Your task to perform on an android device: turn off javascript in the chrome app Image 0: 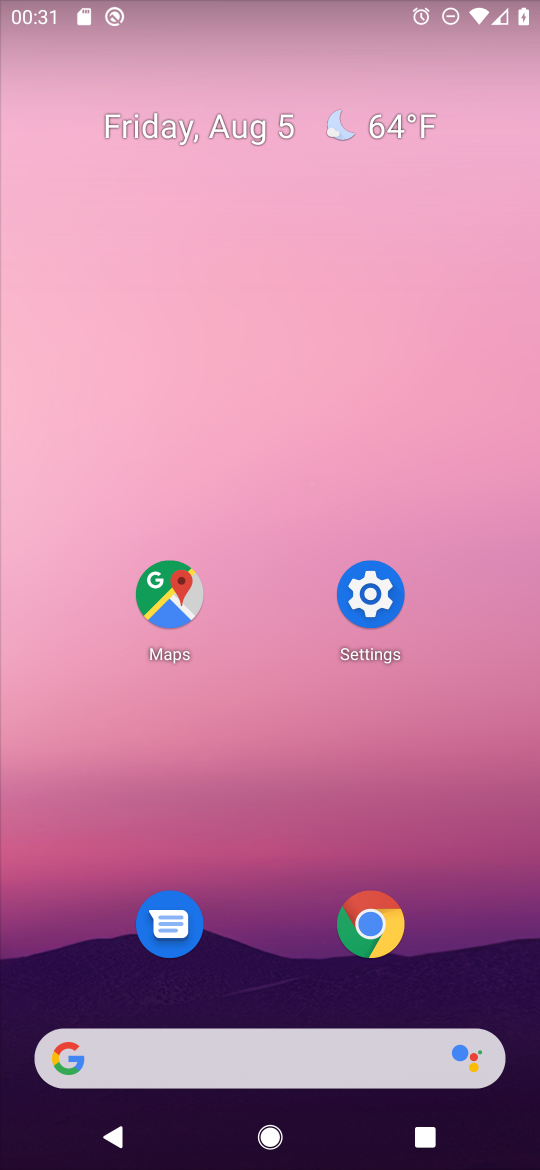
Step 0: click (376, 929)
Your task to perform on an android device: turn off javascript in the chrome app Image 1: 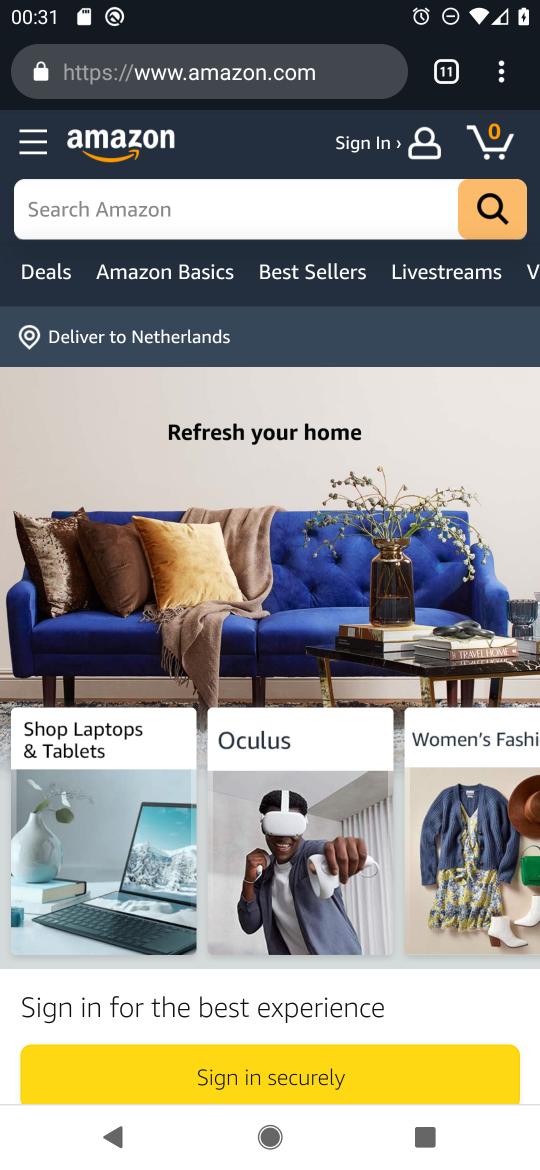
Step 1: drag from (502, 78) to (344, 852)
Your task to perform on an android device: turn off javascript in the chrome app Image 2: 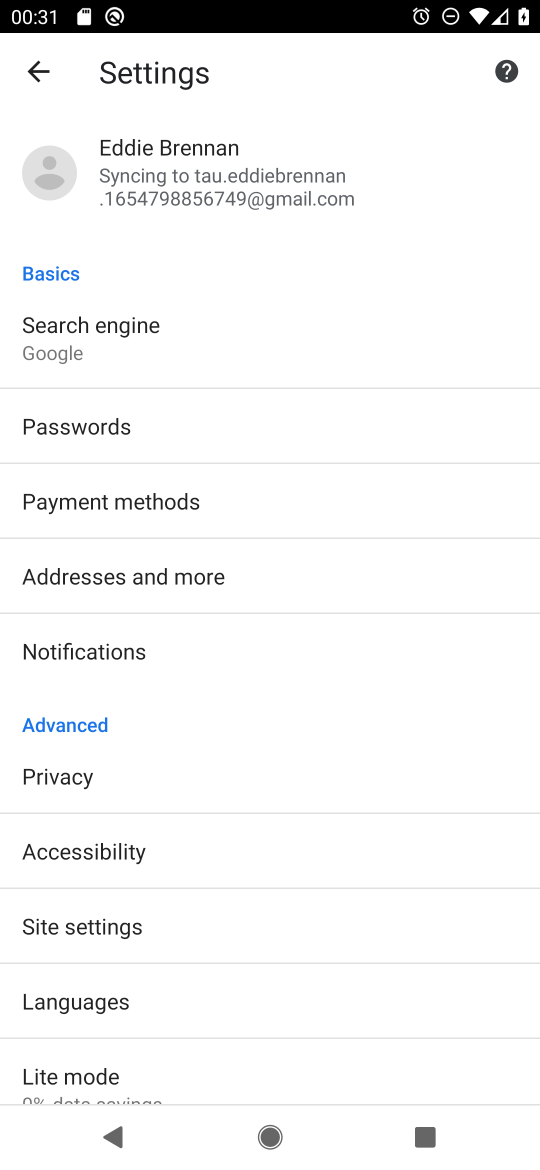
Step 2: drag from (293, 892) to (416, 208)
Your task to perform on an android device: turn off javascript in the chrome app Image 3: 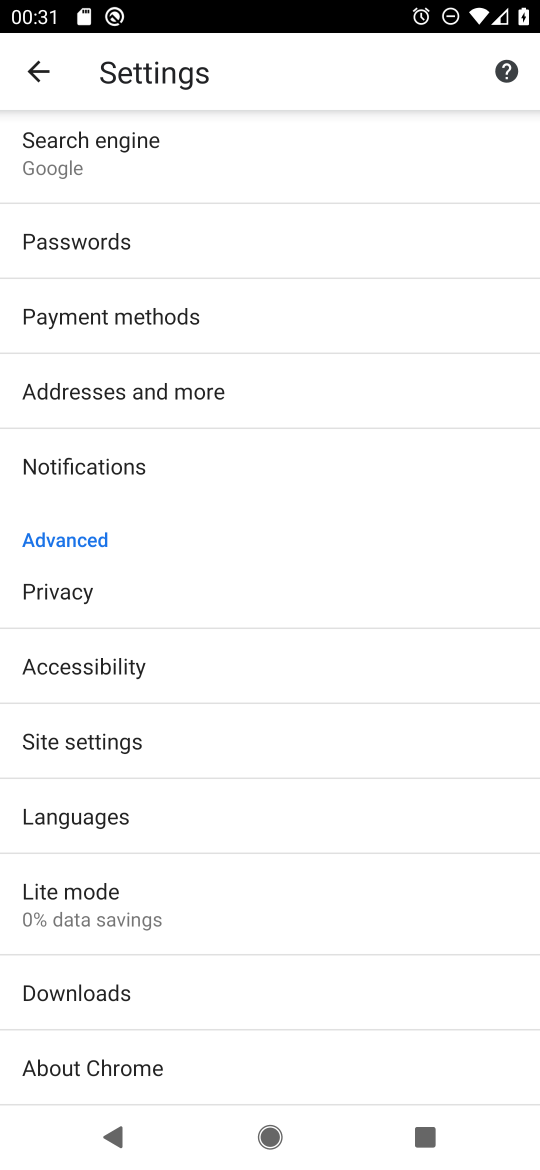
Step 3: click (152, 765)
Your task to perform on an android device: turn off javascript in the chrome app Image 4: 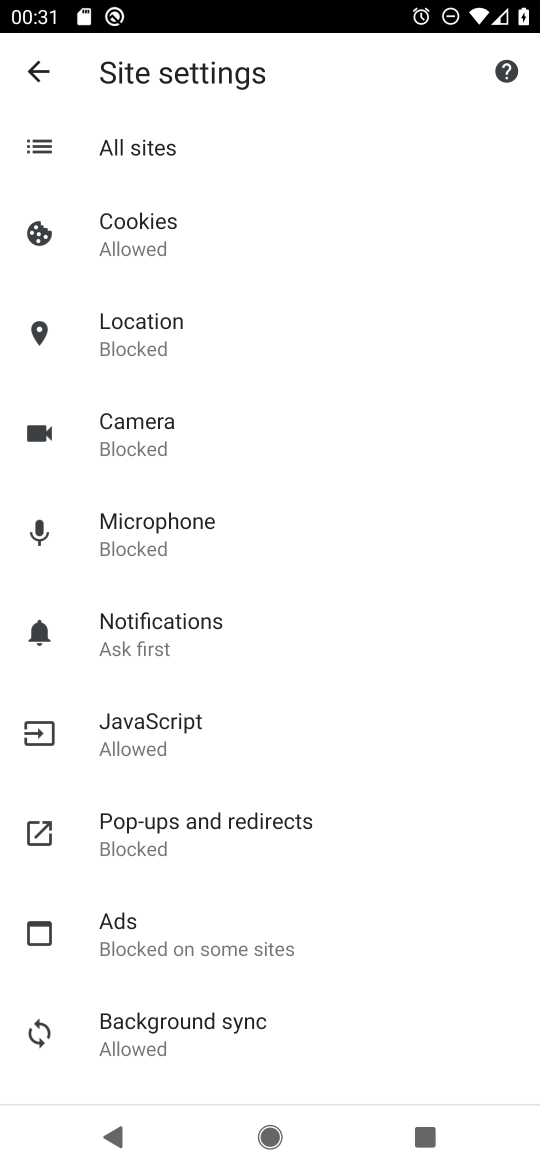
Step 4: click (172, 734)
Your task to perform on an android device: turn off javascript in the chrome app Image 5: 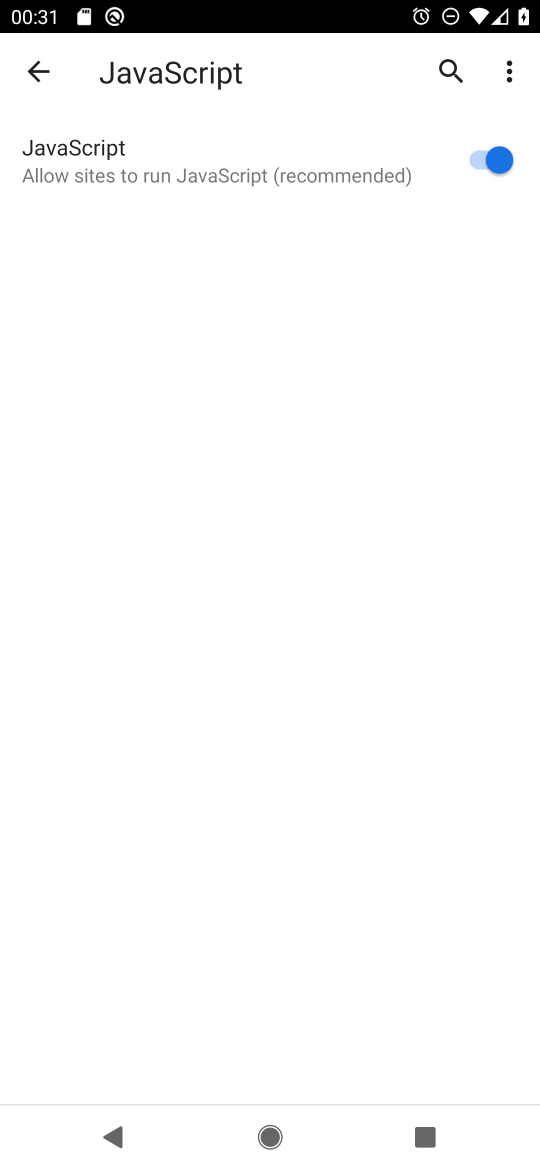
Step 5: click (477, 155)
Your task to perform on an android device: turn off javascript in the chrome app Image 6: 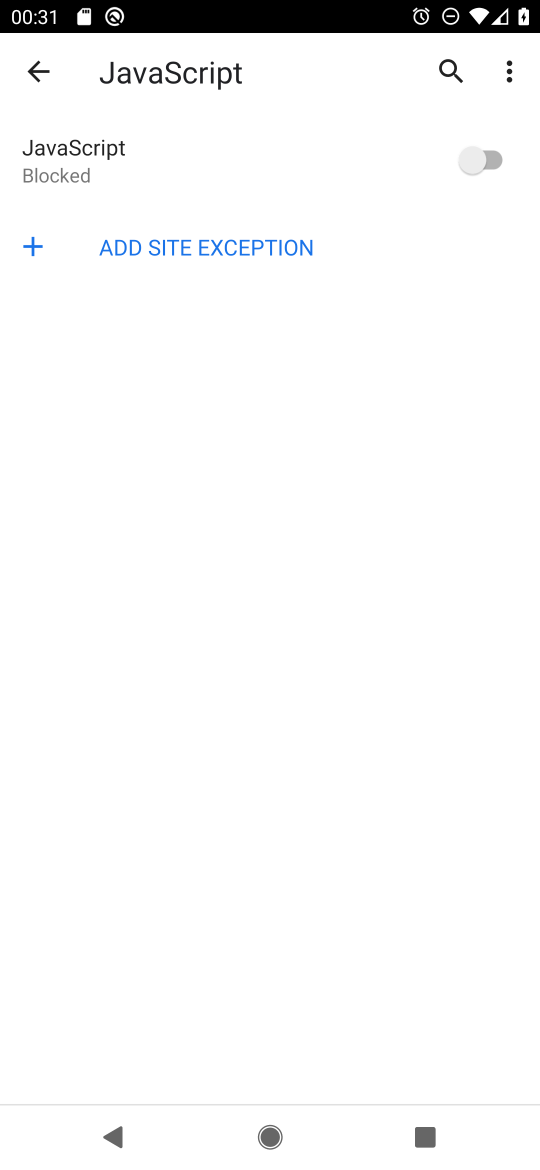
Step 6: task complete